Your task to perform on an android device: Open Chrome and go to settings Image 0: 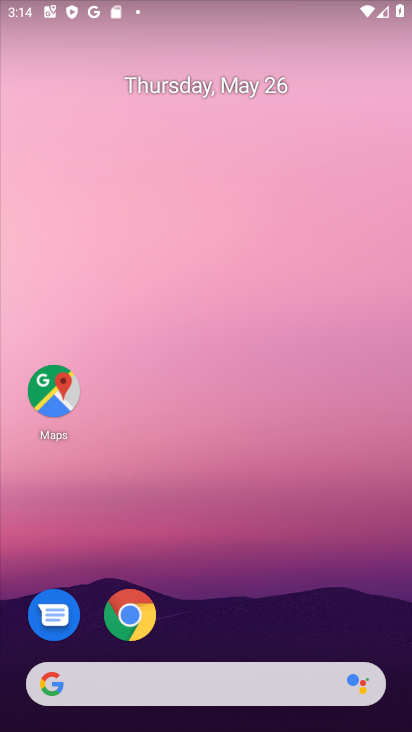
Step 0: click (137, 613)
Your task to perform on an android device: Open Chrome and go to settings Image 1: 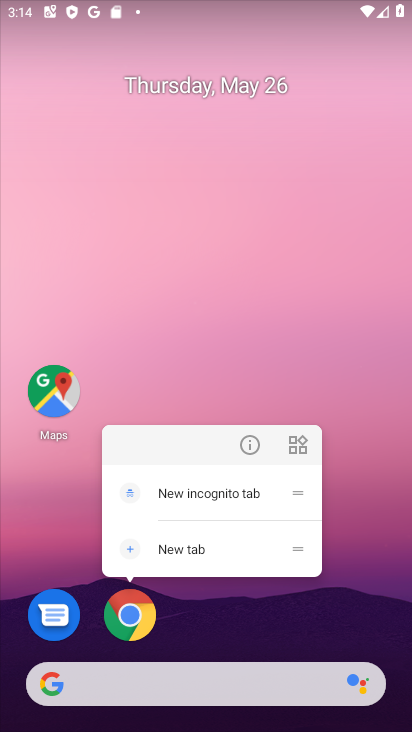
Step 1: click (134, 621)
Your task to perform on an android device: Open Chrome and go to settings Image 2: 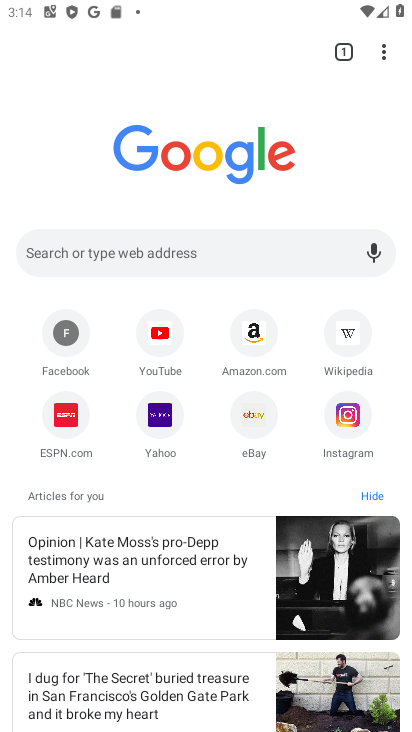
Step 2: click (387, 53)
Your task to perform on an android device: Open Chrome and go to settings Image 3: 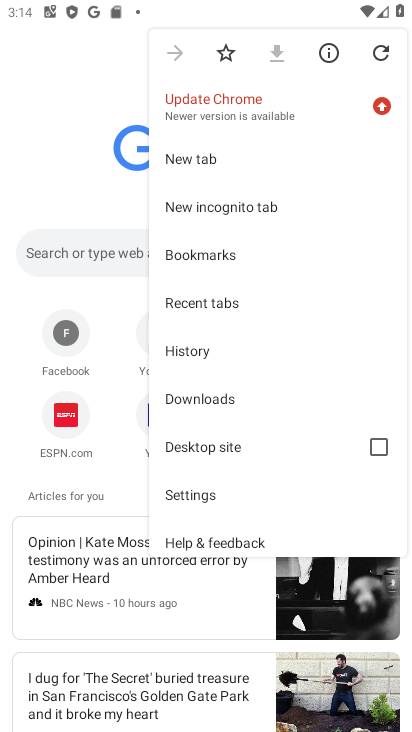
Step 3: click (189, 504)
Your task to perform on an android device: Open Chrome and go to settings Image 4: 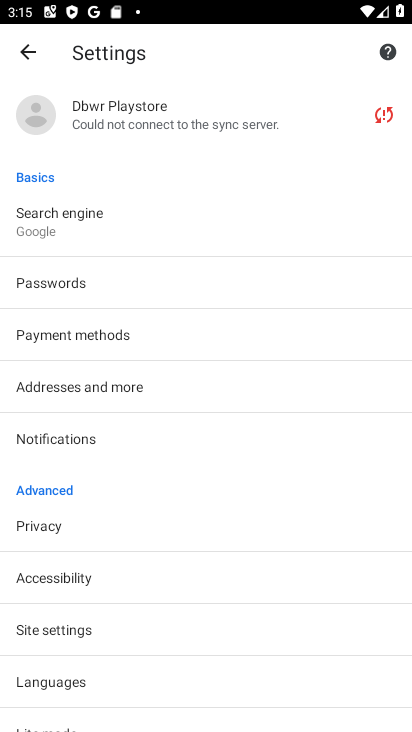
Step 4: task complete